Your task to perform on an android device: toggle improve location accuracy Image 0: 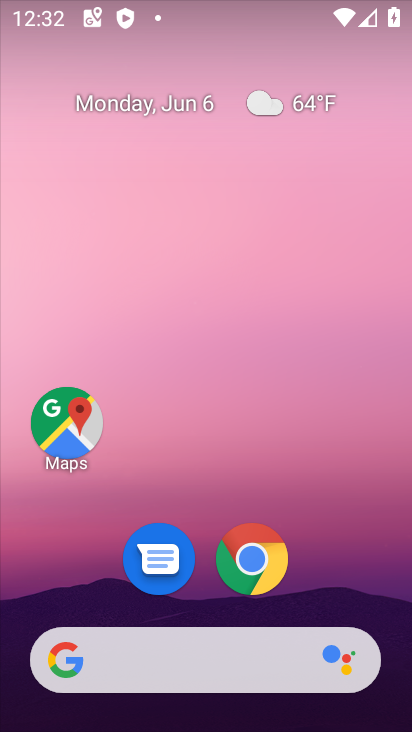
Step 0: drag from (276, 692) to (216, 134)
Your task to perform on an android device: toggle improve location accuracy Image 1: 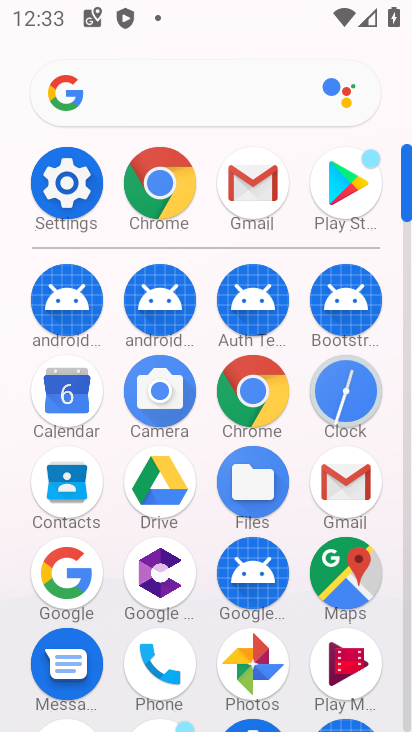
Step 1: click (77, 205)
Your task to perform on an android device: toggle improve location accuracy Image 2: 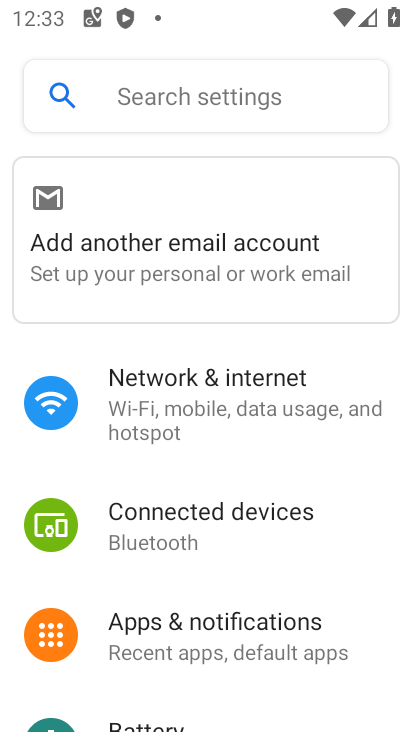
Step 2: click (151, 100)
Your task to perform on an android device: toggle improve location accuracy Image 3: 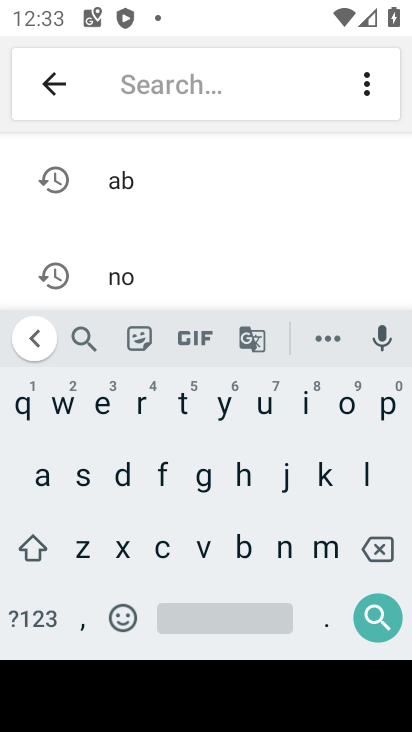
Step 3: click (368, 473)
Your task to perform on an android device: toggle improve location accuracy Image 4: 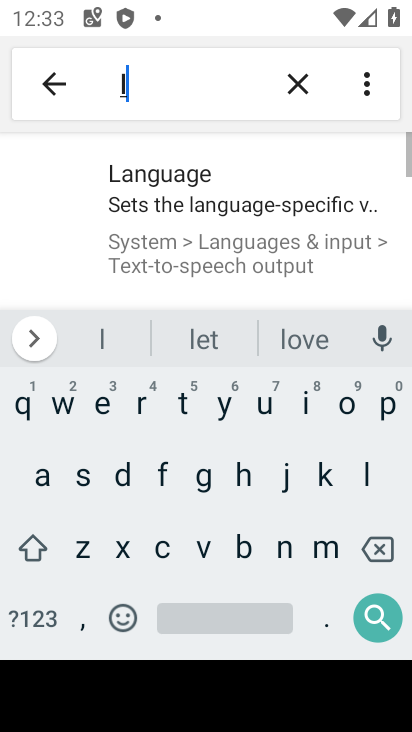
Step 4: click (342, 404)
Your task to perform on an android device: toggle improve location accuracy Image 5: 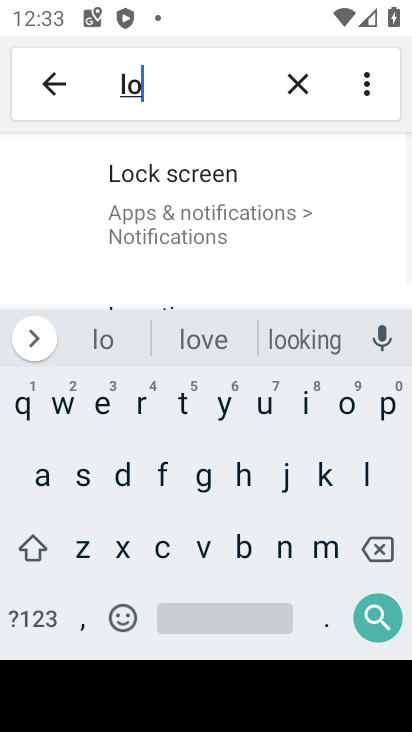
Step 5: click (142, 307)
Your task to perform on an android device: toggle improve location accuracy Image 6: 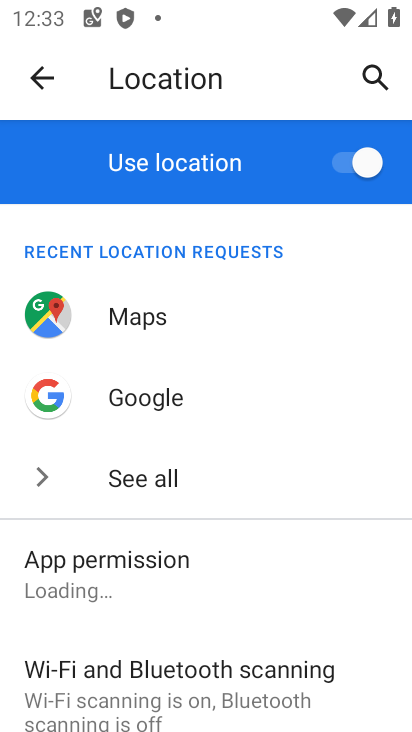
Step 6: drag from (191, 608) to (205, 236)
Your task to perform on an android device: toggle improve location accuracy Image 7: 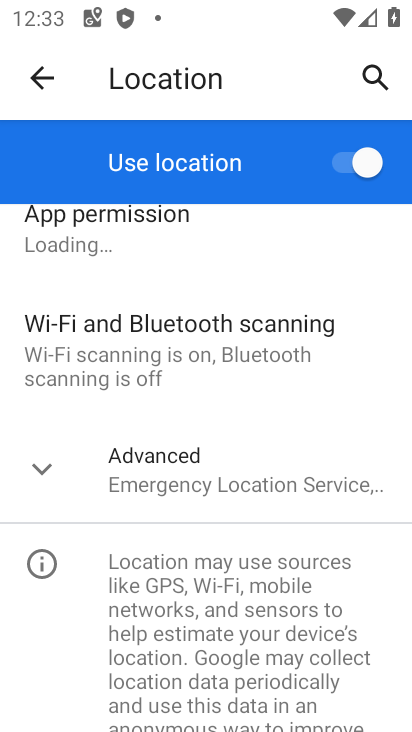
Step 7: click (46, 471)
Your task to perform on an android device: toggle improve location accuracy Image 8: 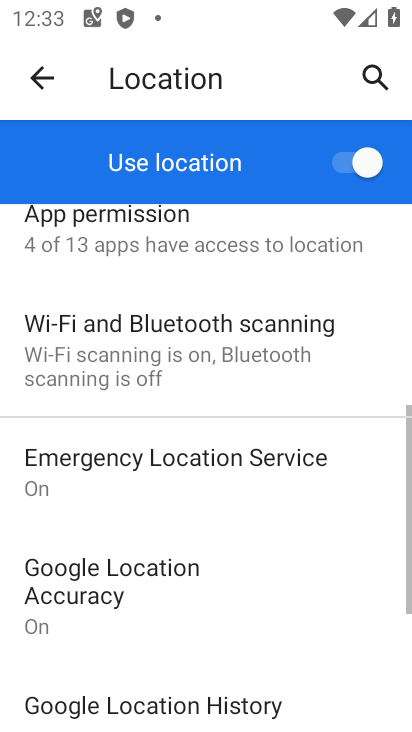
Step 8: click (101, 564)
Your task to perform on an android device: toggle improve location accuracy Image 9: 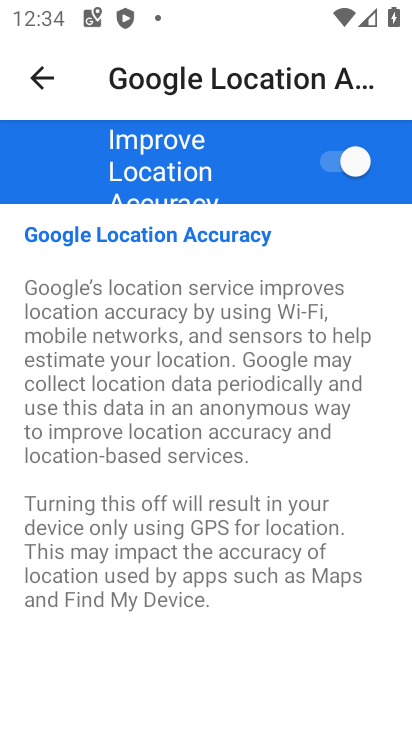
Step 9: task complete